Your task to perform on an android device: Show me productivity apps on the Play Store Image 0: 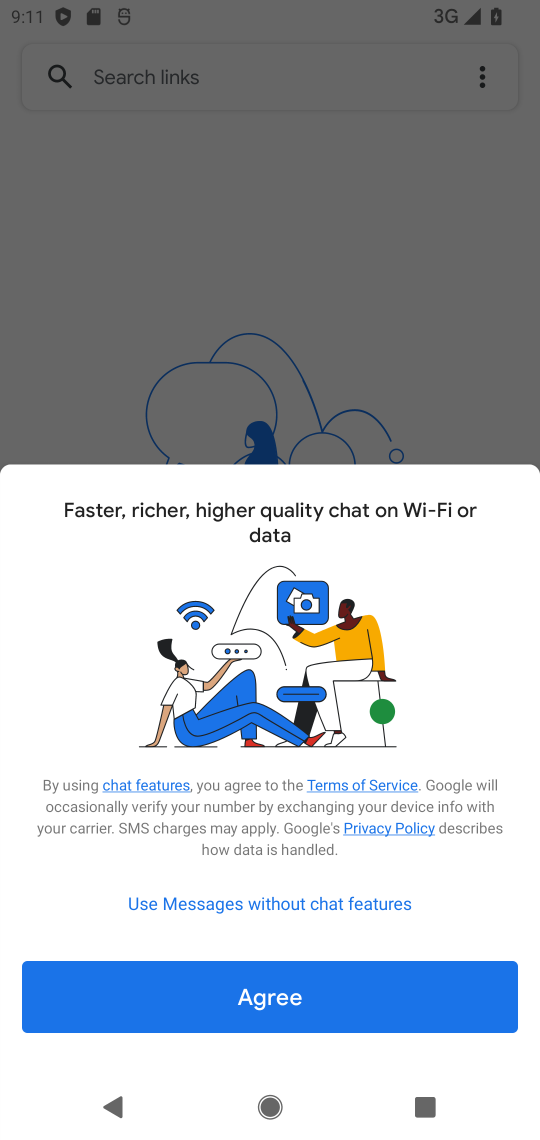
Step 0: press home button
Your task to perform on an android device: Show me productivity apps on the Play Store Image 1: 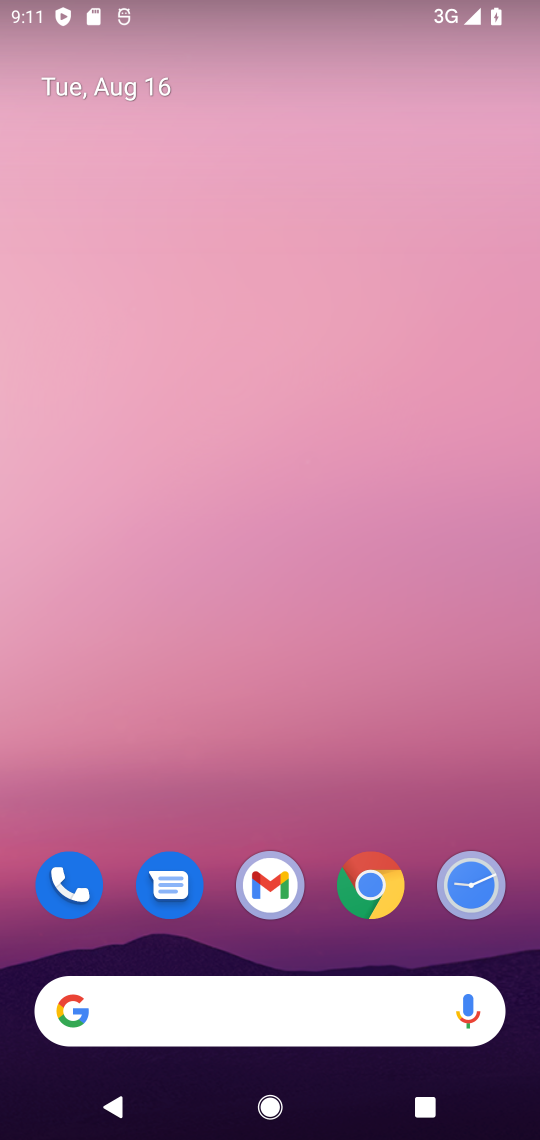
Step 1: drag from (241, 725) to (241, 87)
Your task to perform on an android device: Show me productivity apps on the Play Store Image 2: 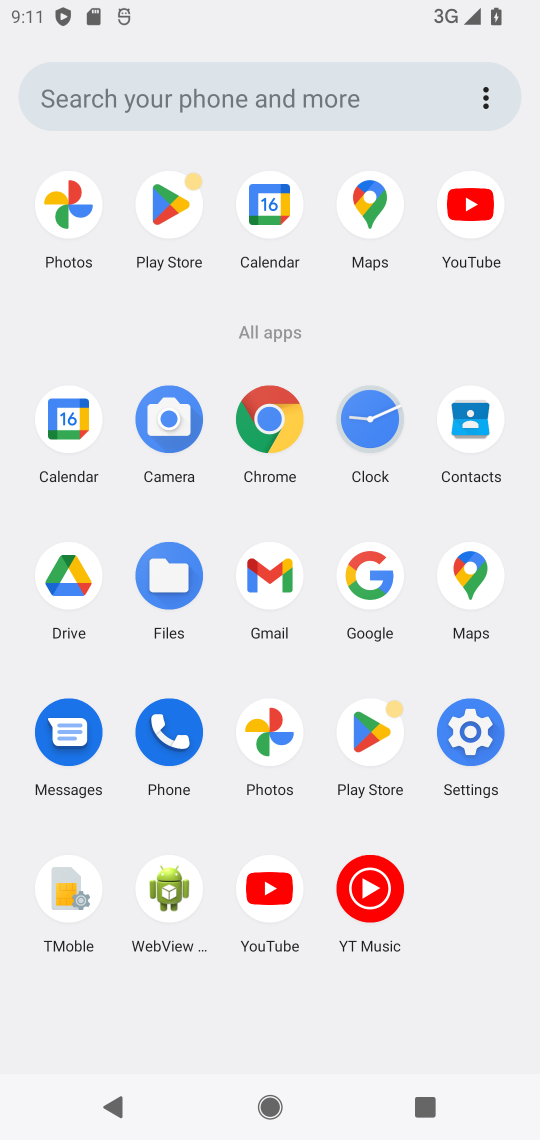
Step 2: click (371, 724)
Your task to perform on an android device: Show me productivity apps on the Play Store Image 3: 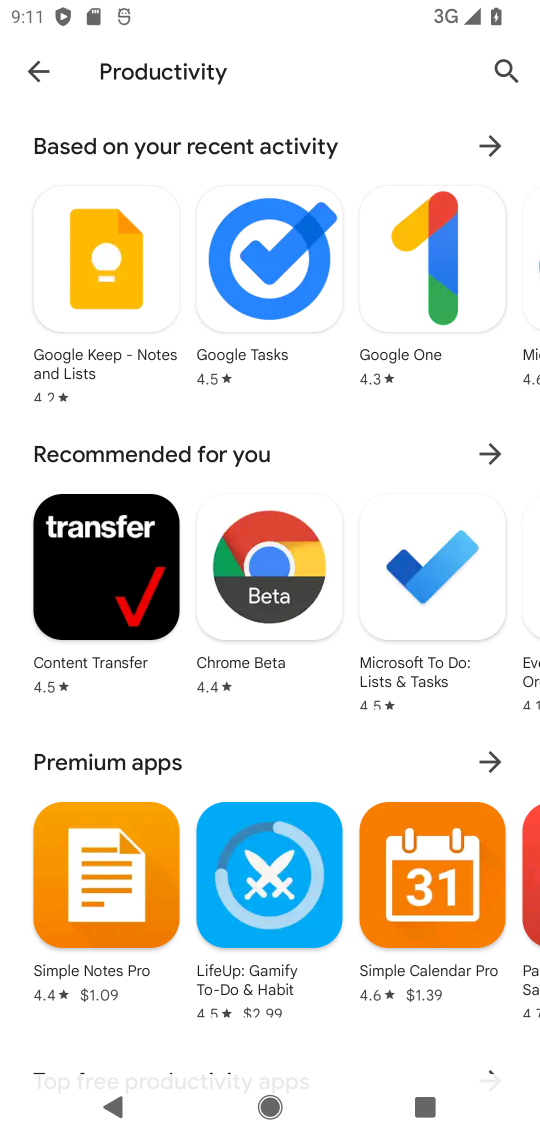
Step 3: click (39, 64)
Your task to perform on an android device: Show me productivity apps on the Play Store Image 4: 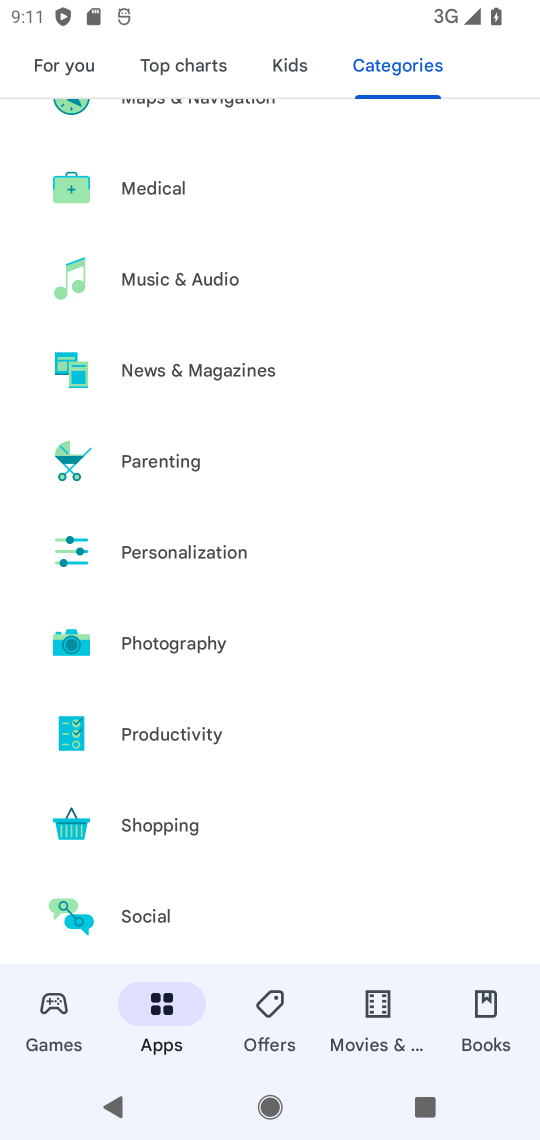
Step 4: press home button
Your task to perform on an android device: Show me productivity apps on the Play Store Image 5: 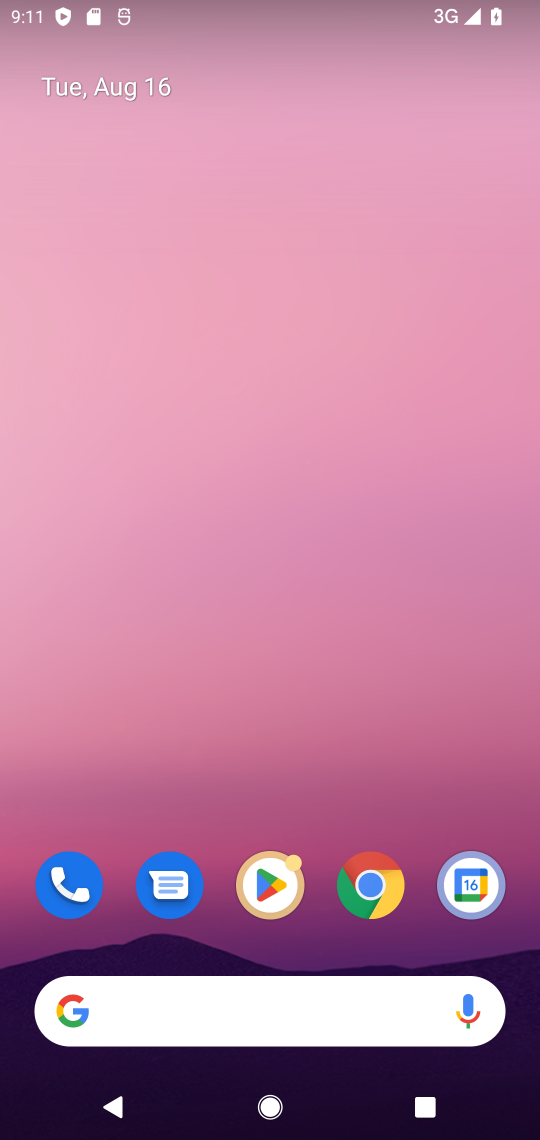
Step 5: click (270, 897)
Your task to perform on an android device: Show me productivity apps on the Play Store Image 6: 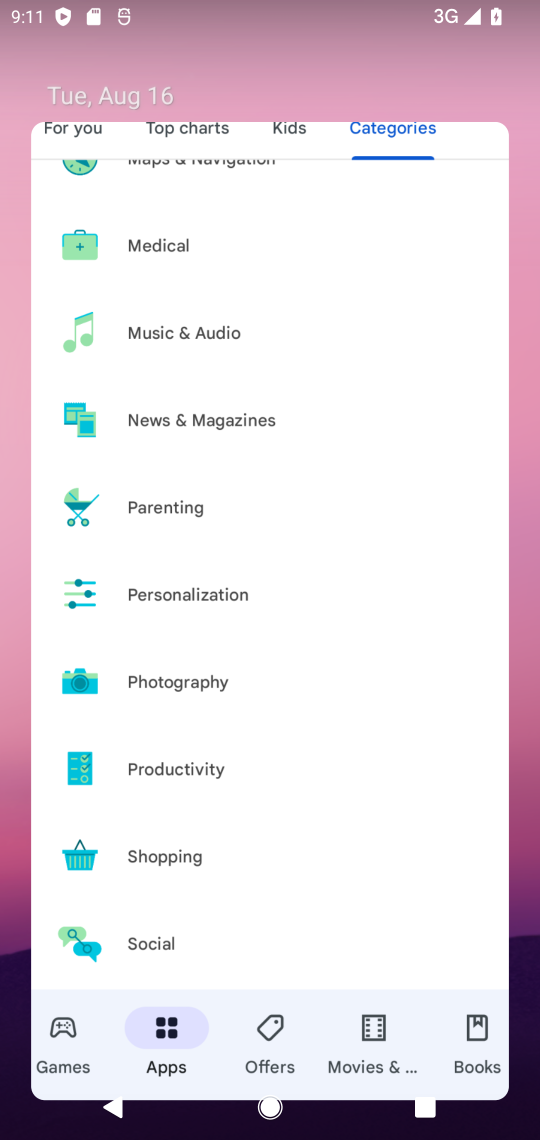
Step 6: click (270, 897)
Your task to perform on an android device: Show me productivity apps on the Play Store Image 7: 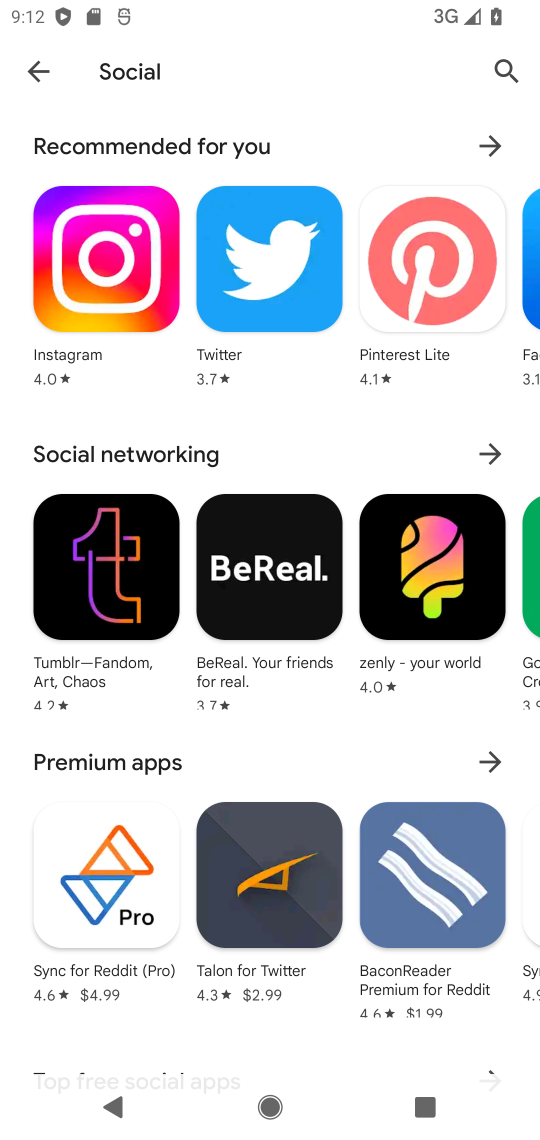
Step 7: click (34, 73)
Your task to perform on an android device: Show me productivity apps on the Play Store Image 8: 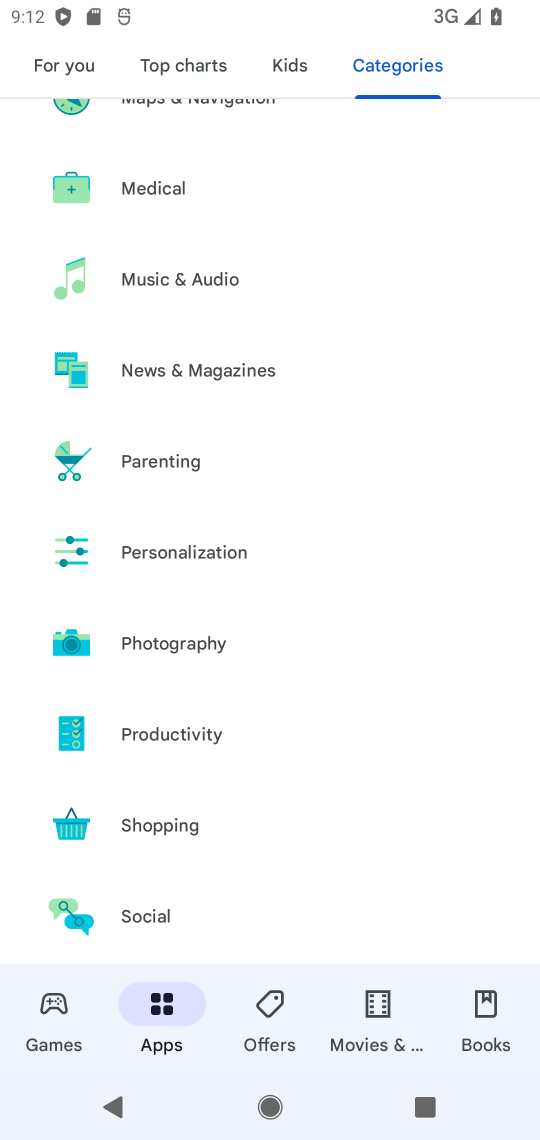
Step 8: click (137, 745)
Your task to perform on an android device: Show me productivity apps on the Play Store Image 9: 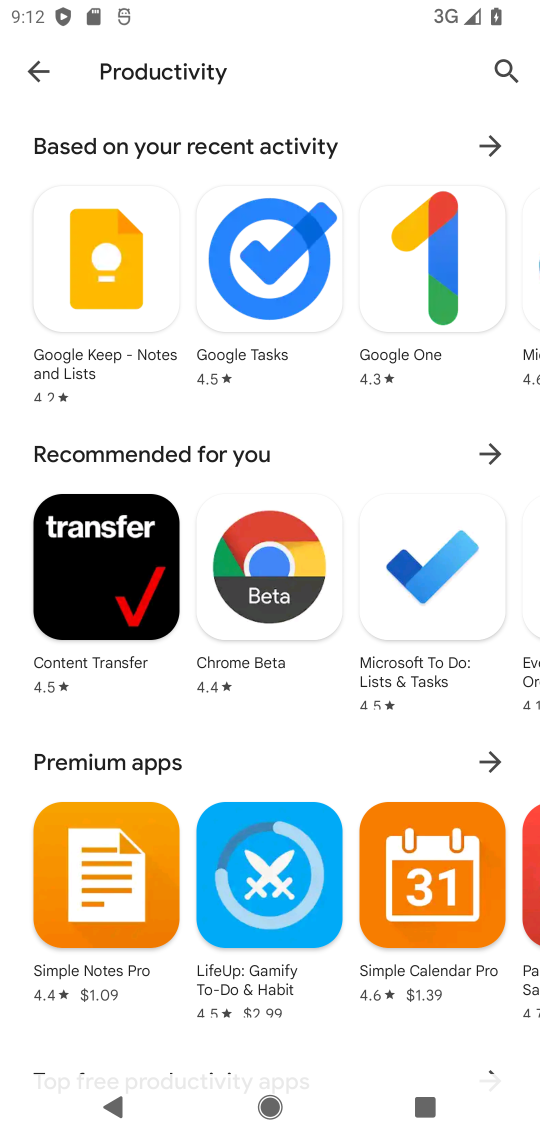
Step 9: task complete